Your task to perform on an android device: turn on javascript in the chrome app Image 0: 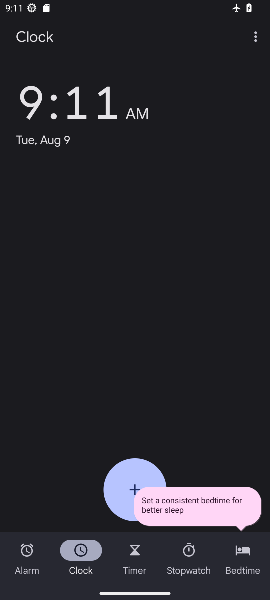
Step 0: press home button
Your task to perform on an android device: turn on javascript in the chrome app Image 1: 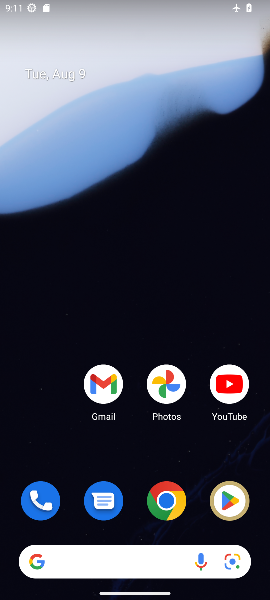
Step 1: click (166, 499)
Your task to perform on an android device: turn on javascript in the chrome app Image 2: 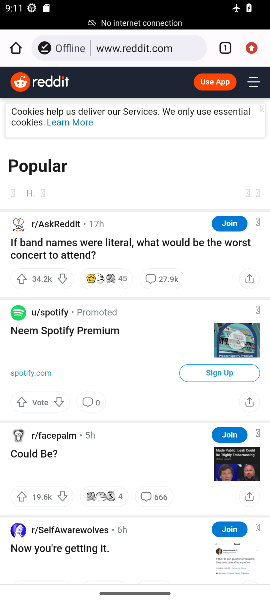
Step 2: click (249, 47)
Your task to perform on an android device: turn on javascript in the chrome app Image 3: 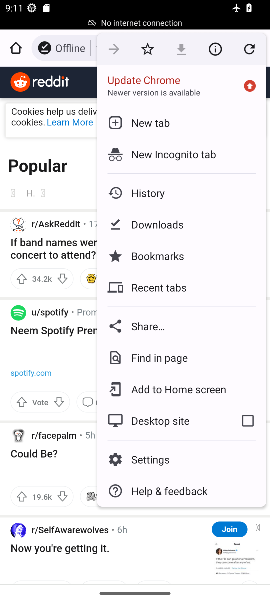
Step 3: click (145, 454)
Your task to perform on an android device: turn on javascript in the chrome app Image 4: 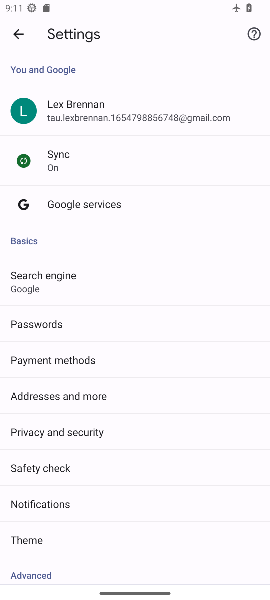
Step 4: drag from (91, 502) to (114, 243)
Your task to perform on an android device: turn on javascript in the chrome app Image 5: 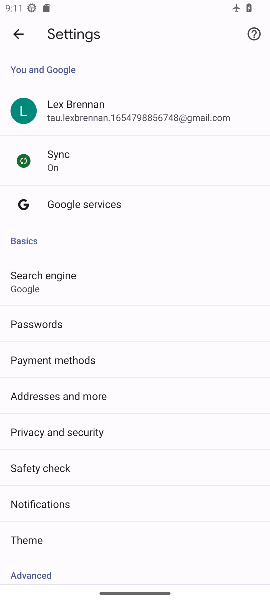
Step 5: drag from (64, 523) to (81, 393)
Your task to perform on an android device: turn on javascript in the chrome app Image 6: 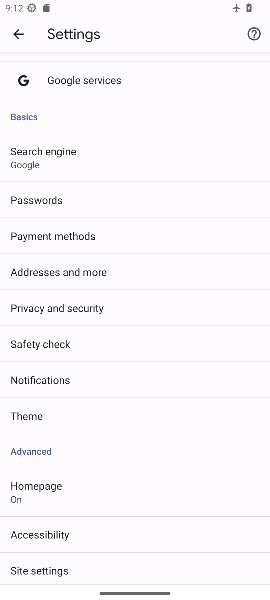
Step 6: click (54, 566)
Your task to perform on an android device: turn on javascript in the chrome app Image 7: 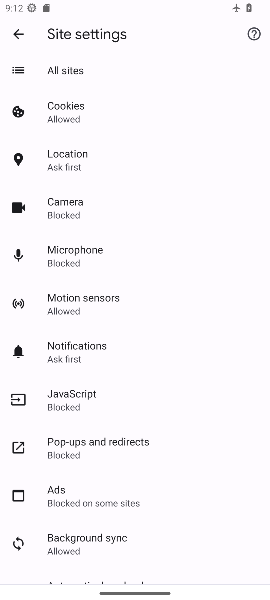
Step 7: click (61, 396)
Your task to perform on an android device: turn on javascript in the chrome app Image 8: 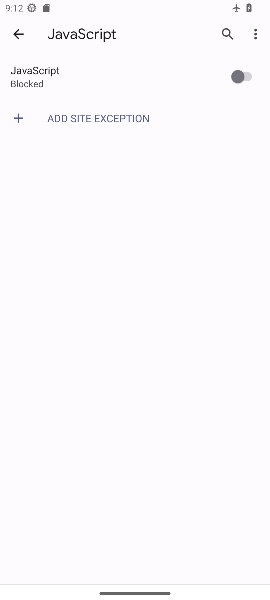
Step 8: click (251, 72)
Your task to perform on an android device: turn on javascript in the chrome app Image 9: 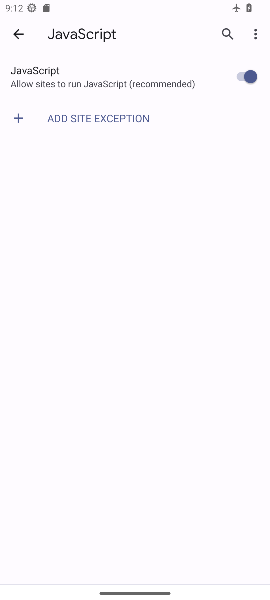
Step 9: task complete